Your task to perform on an android device: turn off priority inbox in the gmail app Image 0: 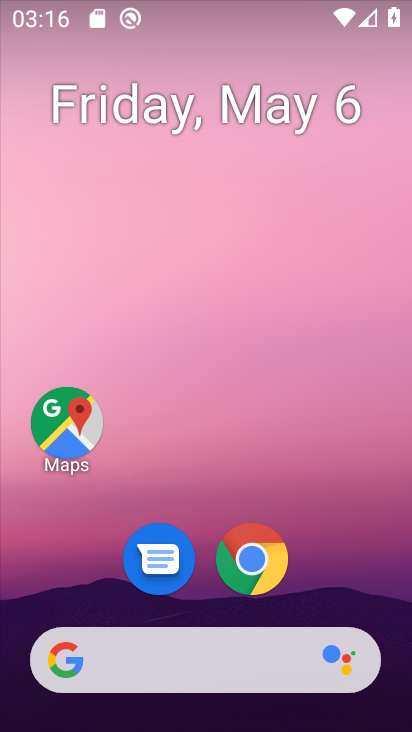
Step 0: drag from (321, 621) to (287, 5)
Your task to perform on an android device: turn off priority inbox in the gmail app Image 1: 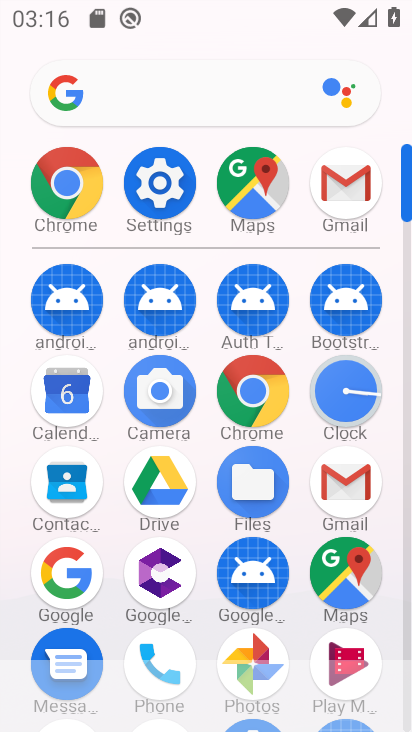
Step 1: click (345, 480)
Your task to perform on an android device: turn off priority inbox in the gmail app Image 2: 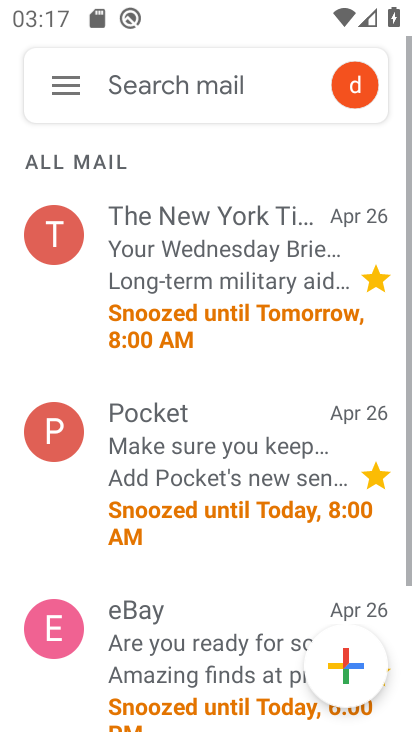
Step 2: click (52, 84)
Your task to perform on an android device: turn off priority inbox in the gmail app Image 3: 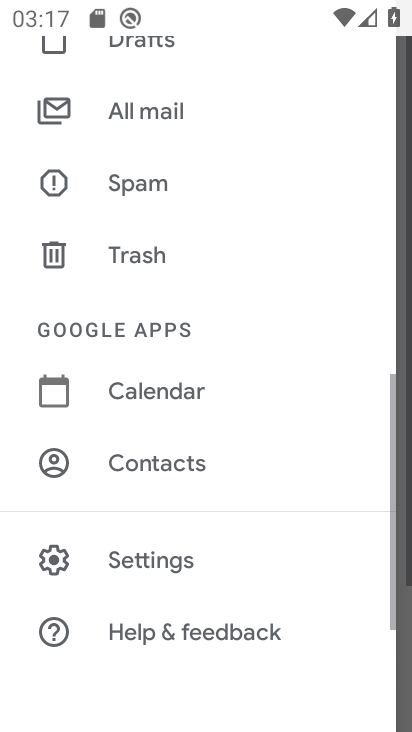
Step 3: click (140, 549)
Your task to perform on an android device: turn off priority inbox in the gmail app Image 4: 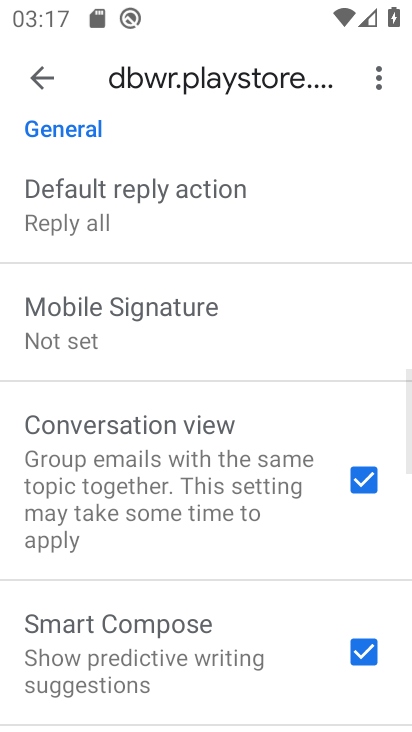
Step 4: drag from (148, 612) to (64, 685)
Your task to perform on an android device: turn off priority inbox in the gmail app Image 5: 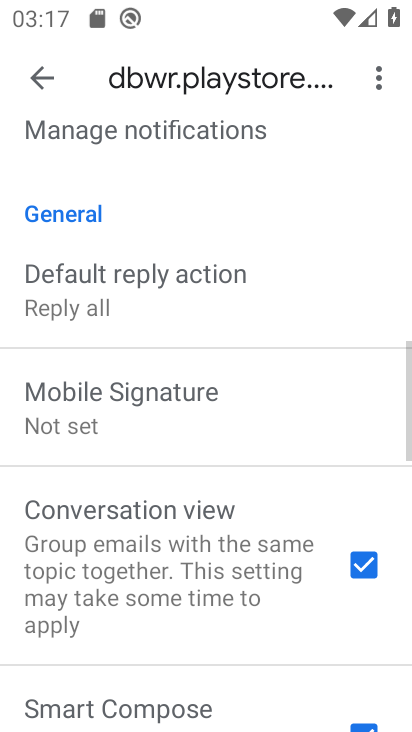
Step 5: drag from (111, 241) to (91, 711)
Your task to perform on an android device: turn off priority inbox in the gmail app Image 6: 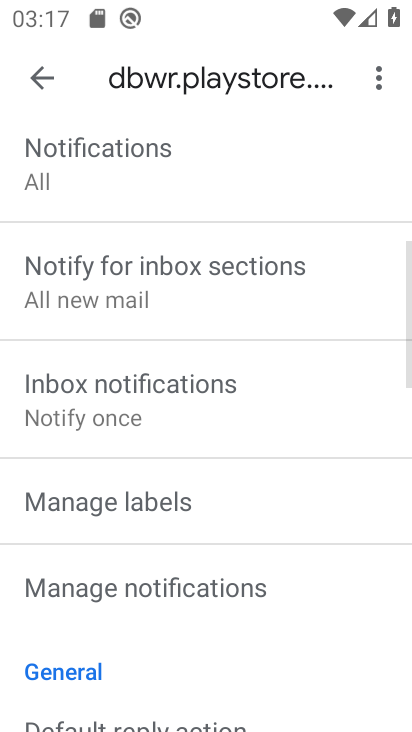
Step 6: drag from (112, 286) to (99, 714)
Your task to perform on an android device: turn off priority inbox in the gmail app Image 7: 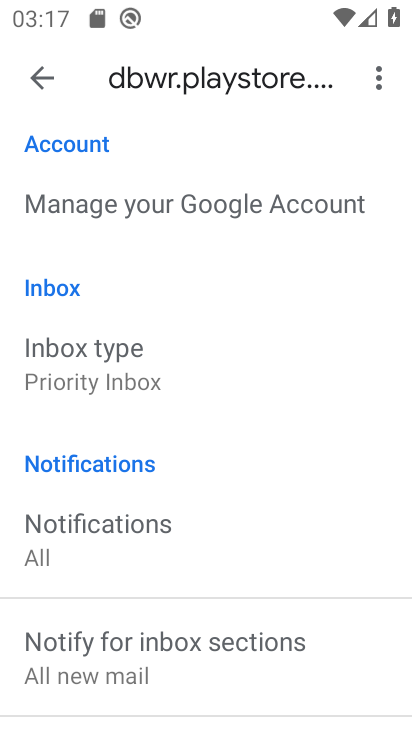
Step 7: click (64, 368)
Your task to perform on an android device: turn off priority inbox in the gmail app Image 8: 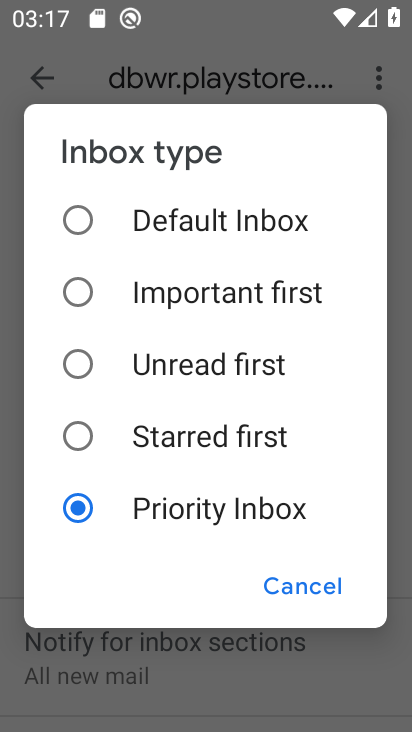
Step 8: click (82, 298)
Your task to perform on an android device: turn off priority inbox in the gmail app Image 9: 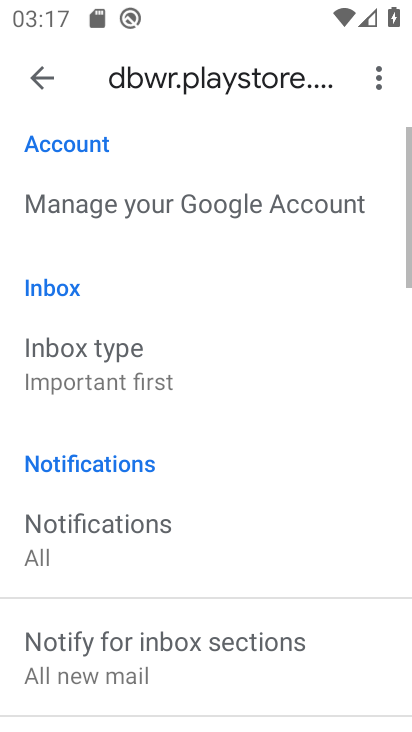
Step 9: task complete